Your task to perform on an android device: Go to Reddit.com Image 0: 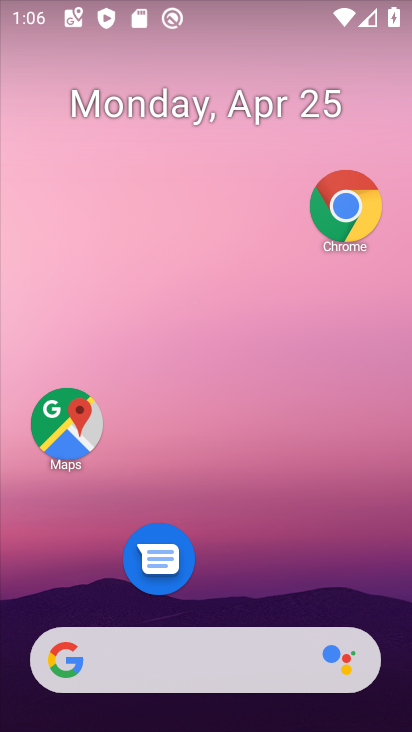
Step 0: click (338, 200)
Your task to perform on an android device: Go to Reddit.com Image 1: 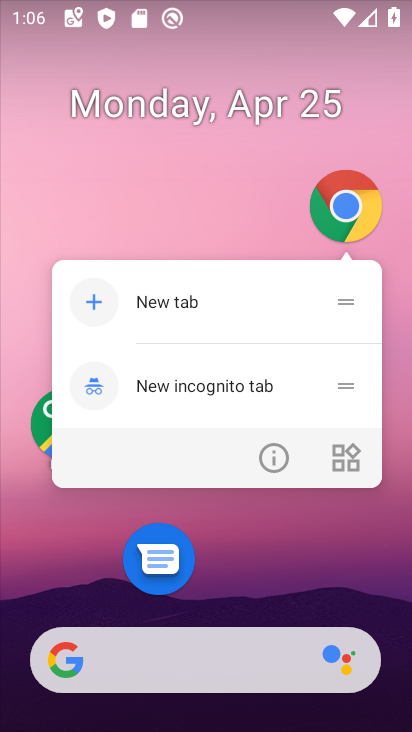
Step 1: click (350, 196)
Your task to perform on an android device: Go to Reddit.com Image 2: 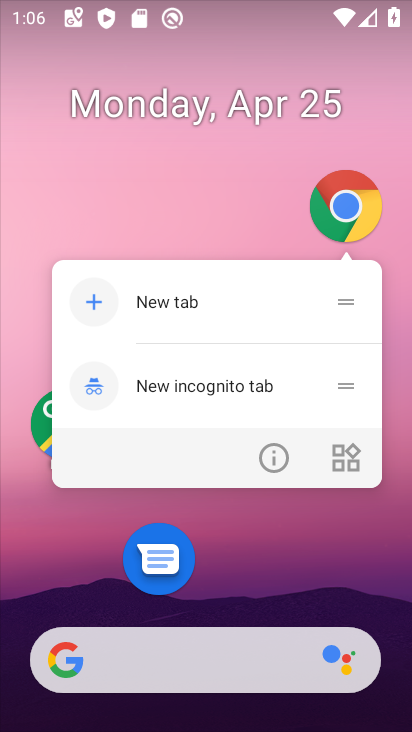
Step 2: click (342, 212)
Your task to perform on an android device: Go to Reddit.com Image 3: 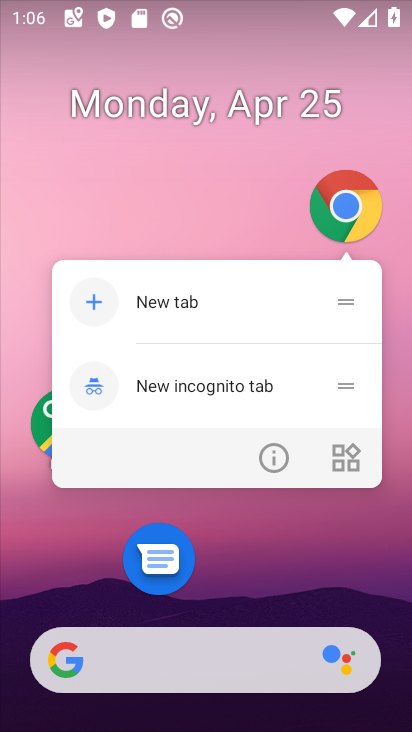
Step 3: click (342, 215)
Your task to perform on an android device: Go to Reddit.com Image 4: 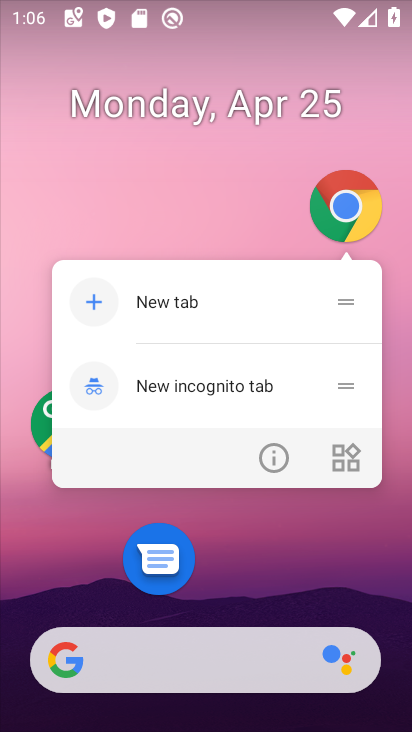
Step 4: click (346, 209)
Your task to perform on an android device: Go to Reddit.com Image 5: 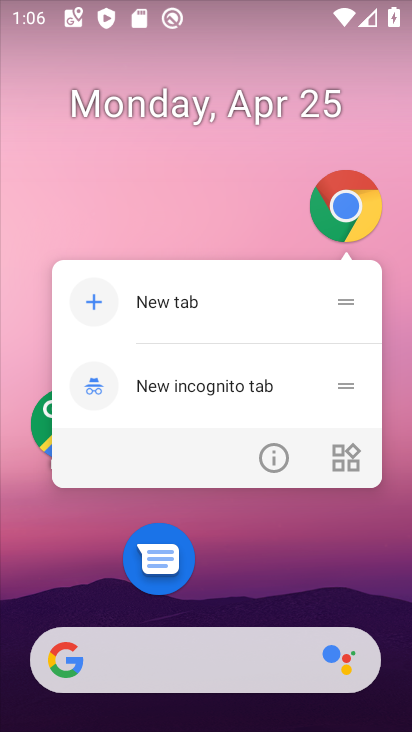
Step 5: click (346, 204)
Your task to perform on an android device: Go to Reddit.com Image 6: 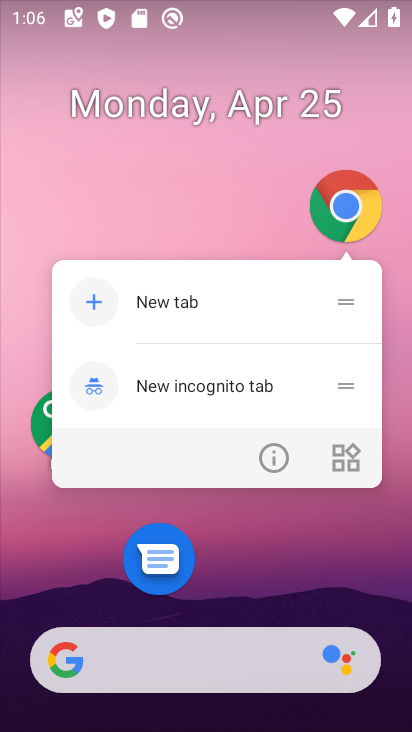
Step 6: click (353, 205)
Your task to perform on an android device: Go to Reddit.com Image 7: 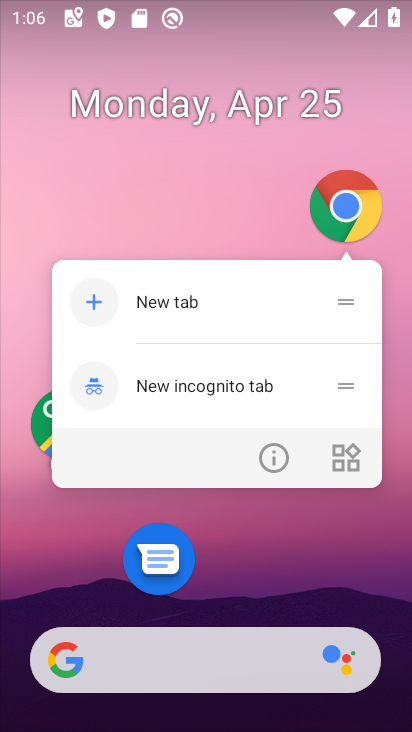
Step 7: click (348, 200)
Your task to perform on an android device: Go to Reddit.com Image 8: 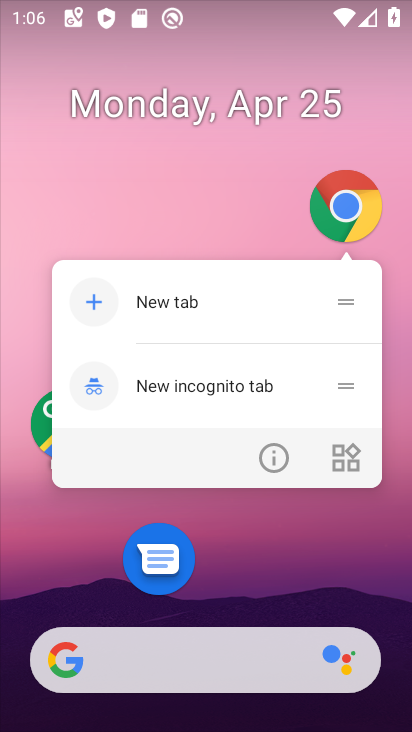
Step 8: click (350, 204)
Your task to perform on an android device: Go to Reddit.com Image 9: 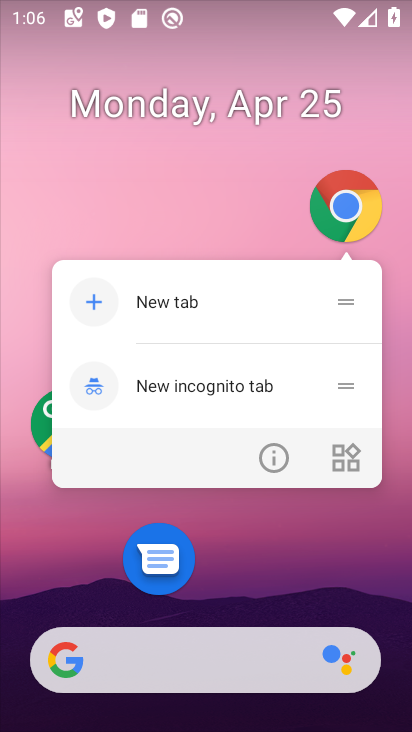
Step 9: click (356, 206)
Your task to perform on an android device: Go to Reddit.com Image 10: 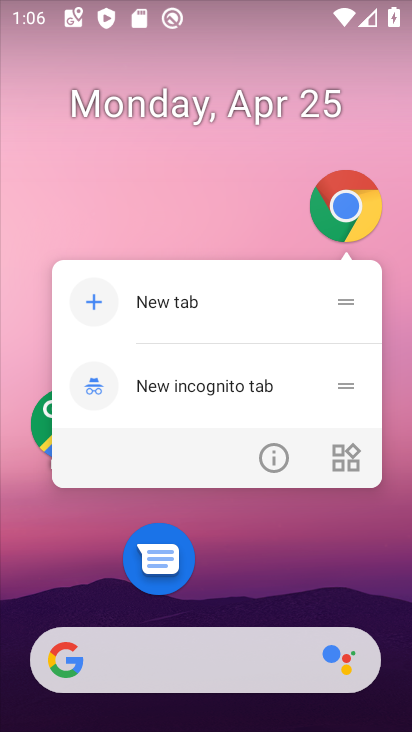
Step 10: click (351, 212)
Your task to perform on an android device: Go to Reddit.com Image 11: 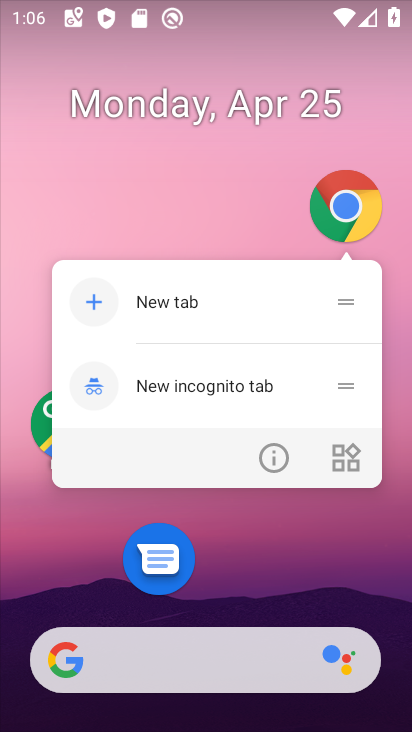
Step 11: click (362, 222)
Your task to perform on an android device: Go to Reddit.com Image 12: 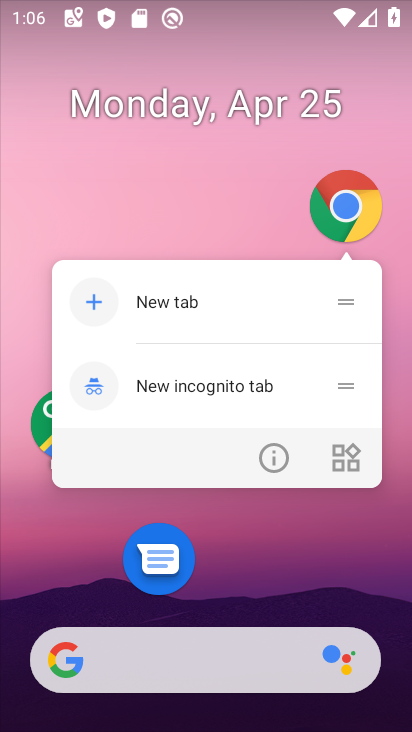
Step 12: click (348, 214)
Your task to perform on an android device: Go to Reddit.com Image 13: 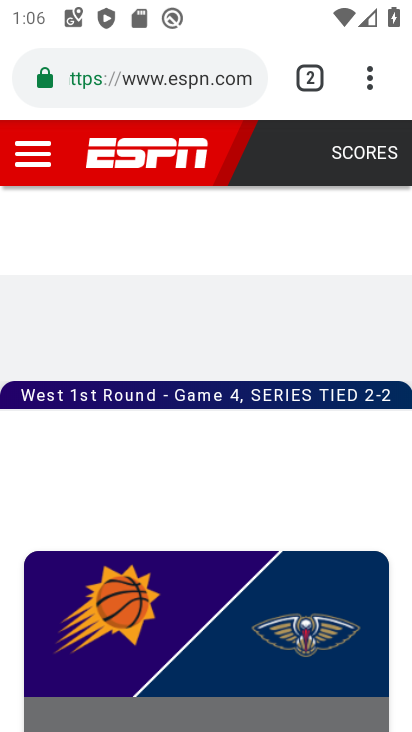
Step 13: click (316, 79)
Your task to perform on an android device: Go to Reddit.com Image 14: 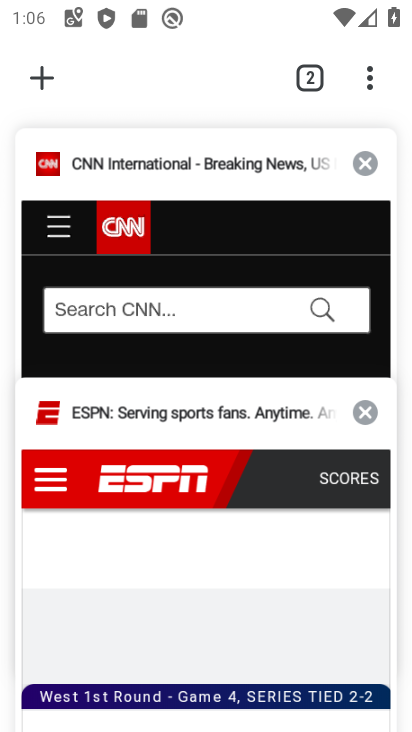
Step 14: click (47, 73)
Your task to perform on an android device: Go to Reddit.com Image 15: 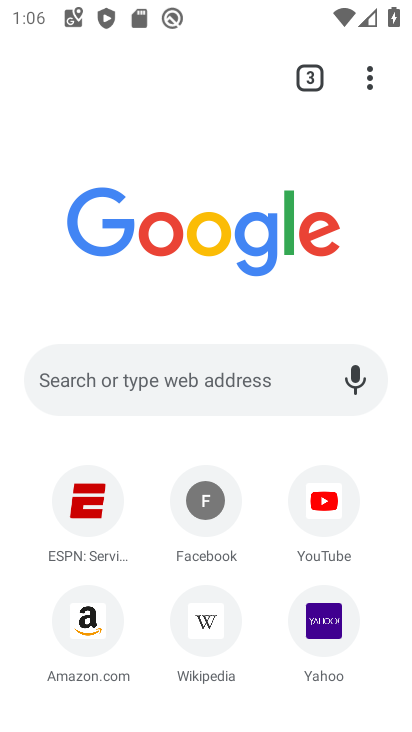
Step 15: click (130, 378)
Your task to perform on an android device: Go to Reddit.com Image 16: 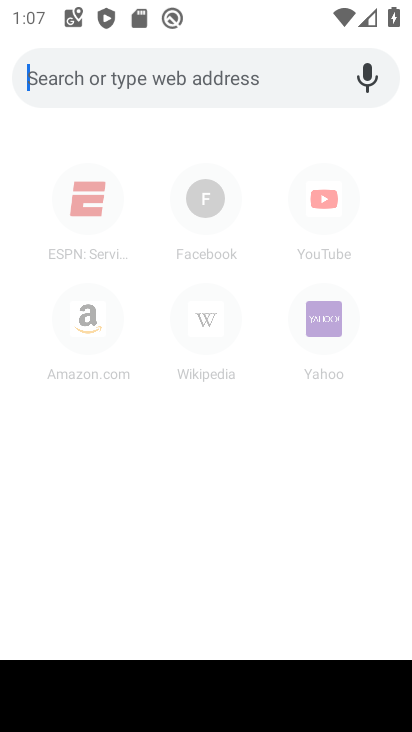
Step 16: type "reddit.com"
Your task to perform on an android device: Go to Reddit.com Image 17: 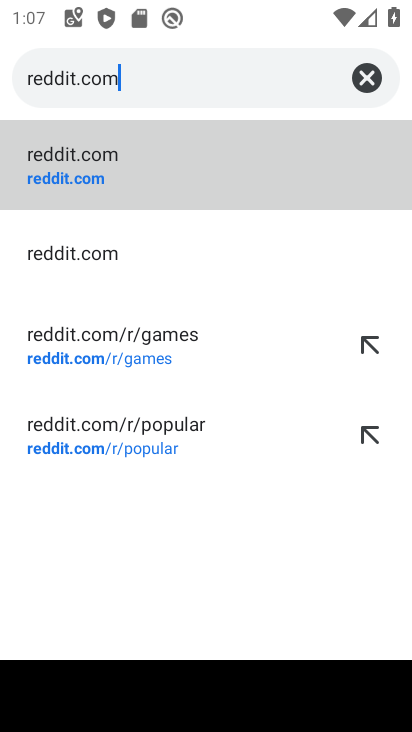
Step 17: click (170, 165)
Your task to perform on an android device: Go to Reddit.com Image 18: 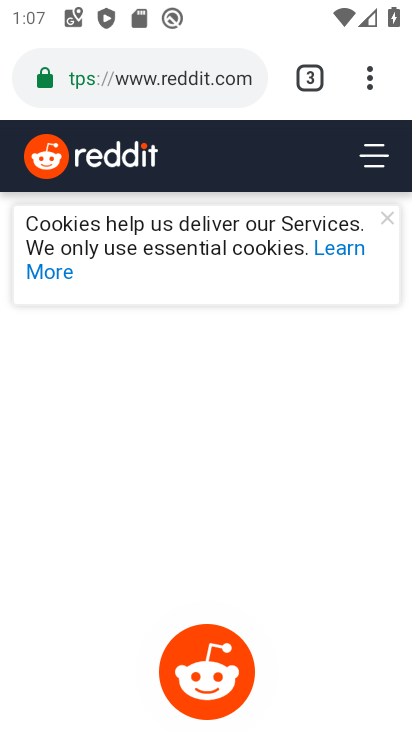
Step 18: task complete